Your task to perform on an android device: toggle show notifications on the lock screen Image 0: 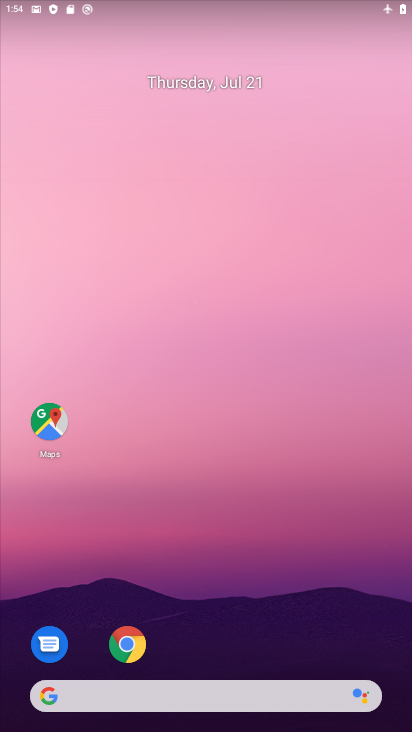
Step 0: drag from (239, 657) to (216, 213)
Your task to perform on an android device: toggle show notifications on the lock screen Image 1: 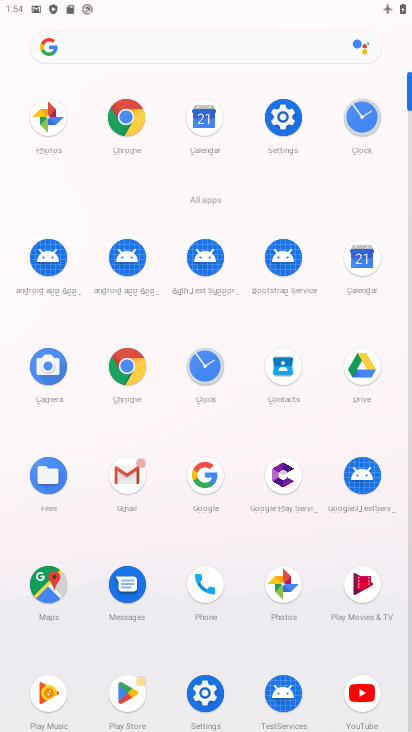
Step 1: click (287, 131)
Your task to perform on an android device: toggle show notifications on the lock screen Image 2: 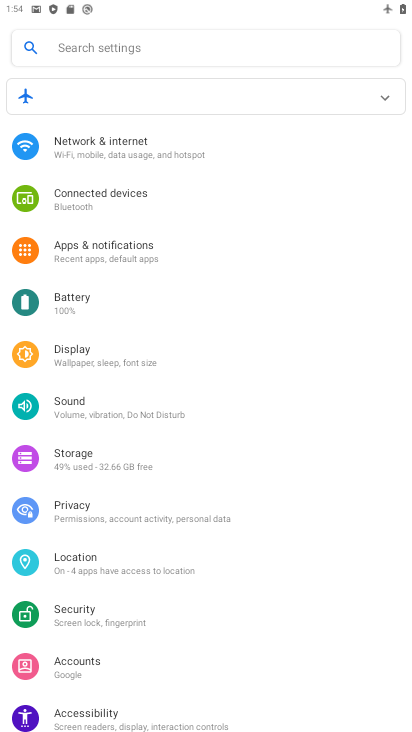
Step 2: click (201, 244)
Your task to perform on an android device: toggle show notifications on the lock screen Image 3: 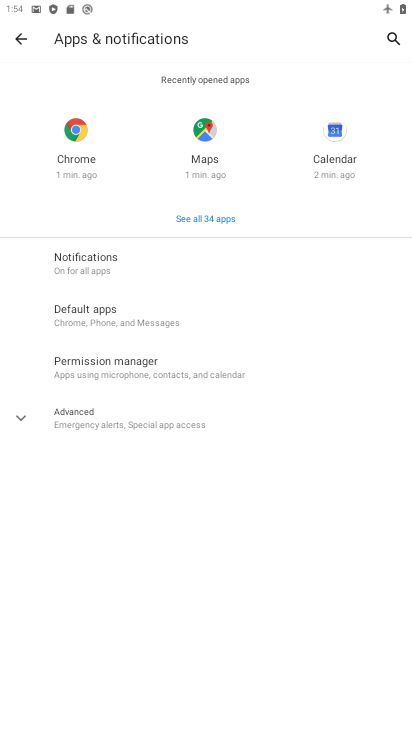
Step 3: click (191, 268)
Your task to perform on an android device: toggle show notifications on the lock screen Image 4: 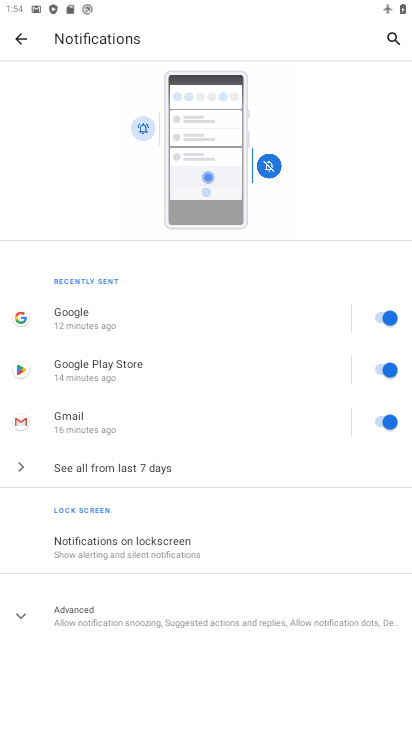
Step 4: click (213, 544)
Your task to perform on an android device: toggle show notifications on the lock screen Image 5: 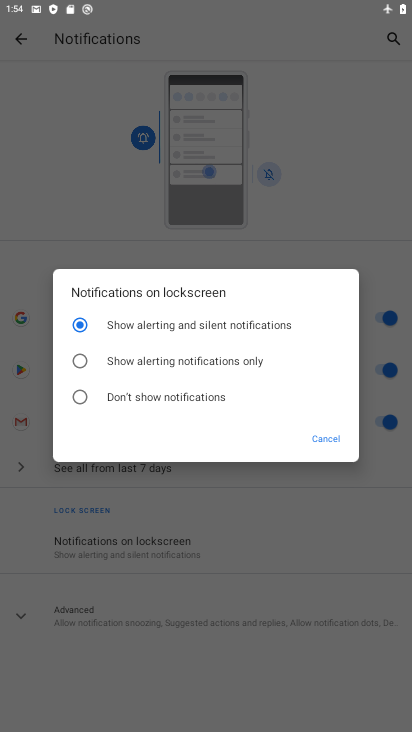
Step 5: click (223, 369)
Your task to perform on an android device: toggle show notifications on the lock screen Image 6: 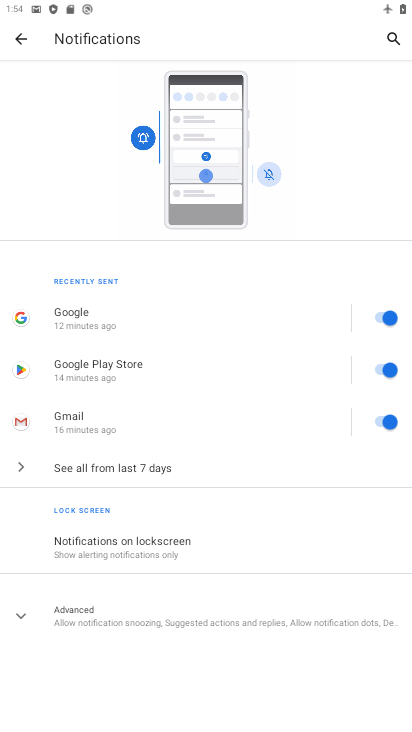
Step 6: task complete